Your task to perform on an android device: stop showing notifications on the lock screen Image 0: 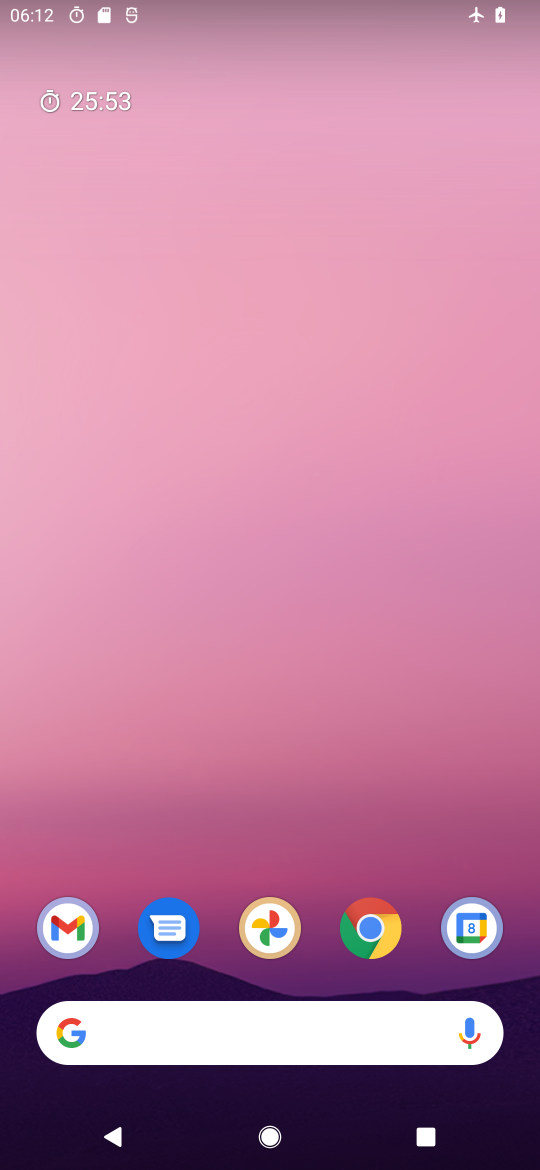
Step 0: drag from (228, 987) to (297, 384)
Your task to perform on an android device: stop showing notifications on the lock screen Image 1: 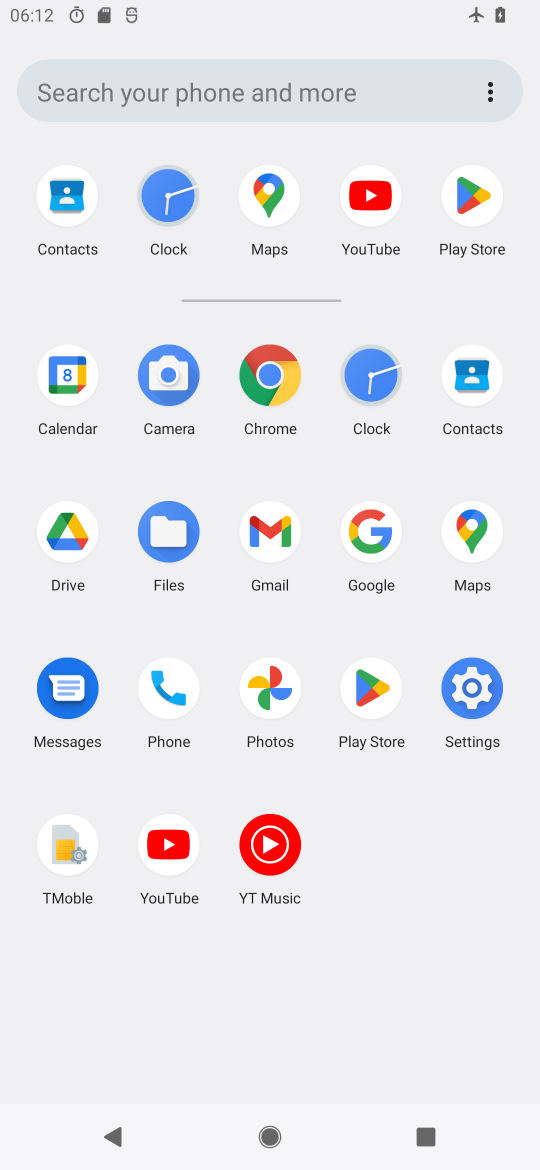
Step 1: click (474, 690)
Your task to perform on an android device: stop showing notifications on the lock screen Image 2: 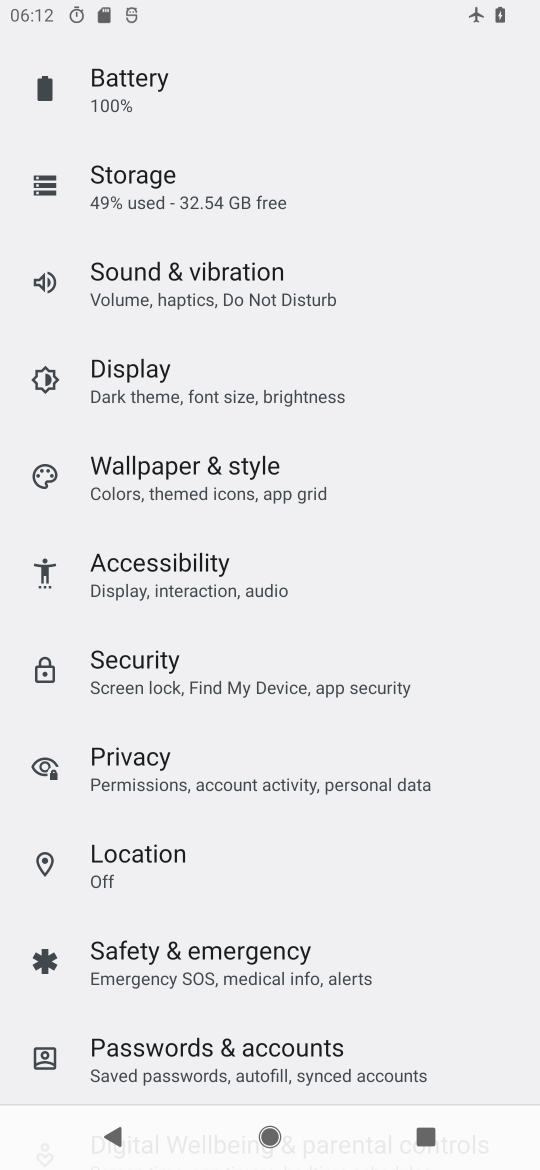
Step 2: drag from (221, 372) to (223, 807)
Your task to perform on an android device: stop showing notifications on the lock screen Image 3: 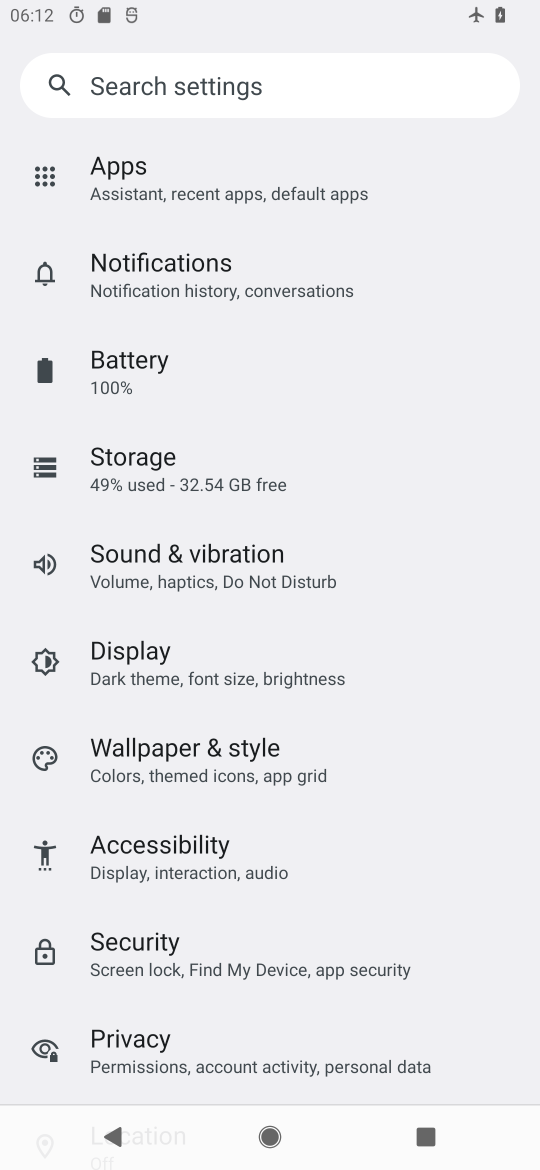
Step 3: click (217, 281)
Your task to perform on an android device: stop showing notifications on the lock screen Image 4: 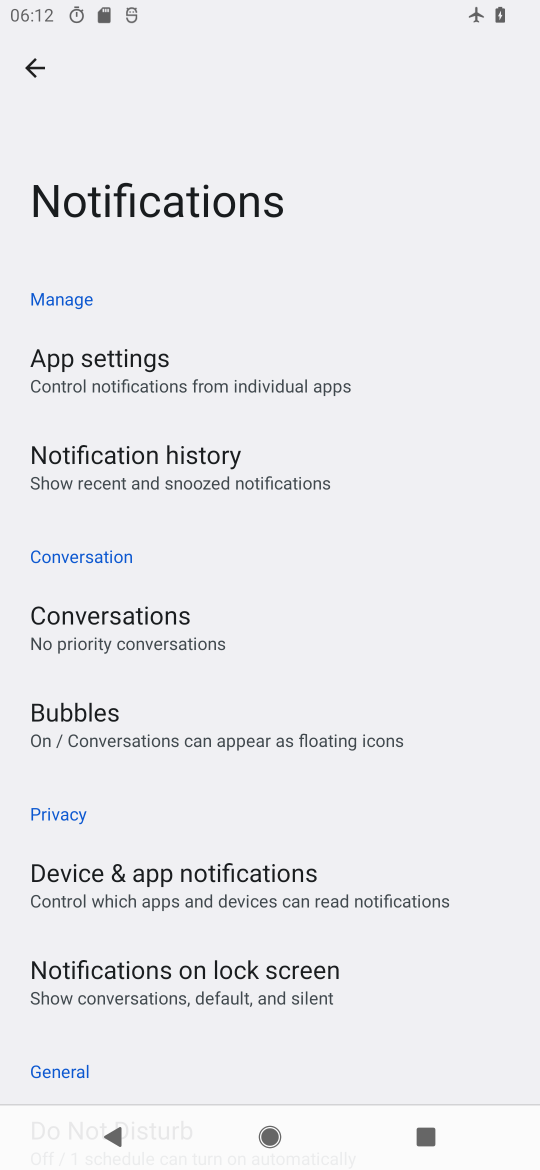
Step 4: drag from (189, 970) to (227, 665)
Your task to perform on an android device: stop showing notifications on the lock screen Image 5: 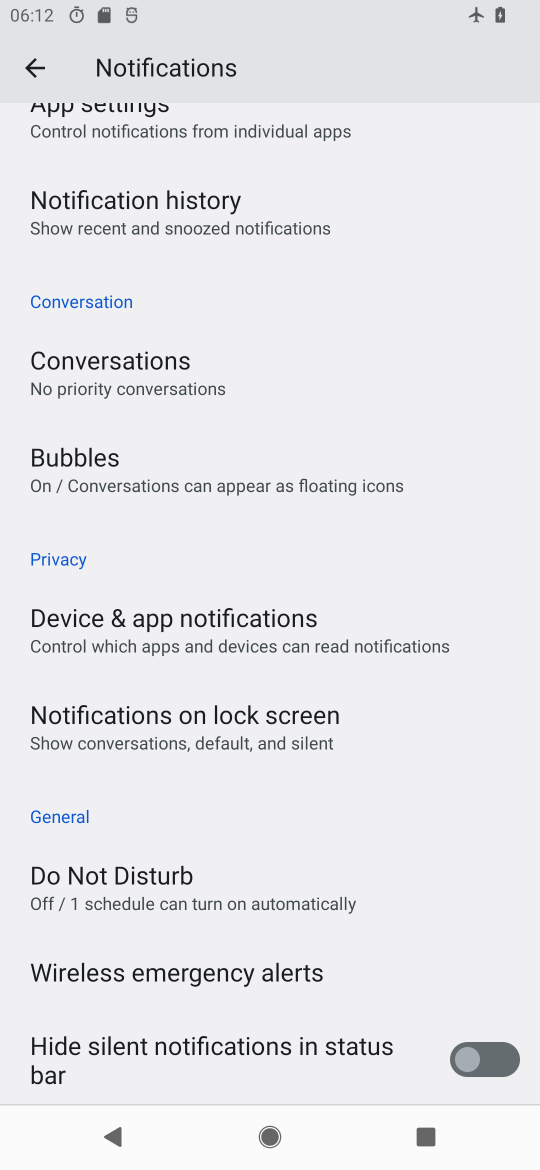
Step 5: click (207, 732)
Your task to perform on an android device: stop showing notifications on the lock screen Image 6: 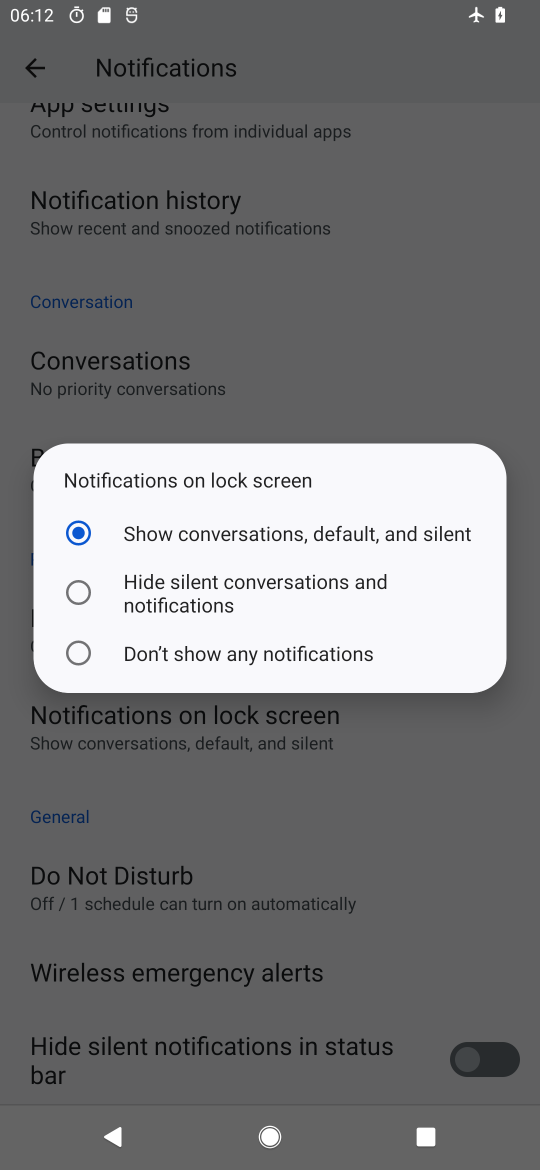
Step 6: click (140, 672)
Your task to perform on an android device: stop showing notifications on the lock screen Image 7: 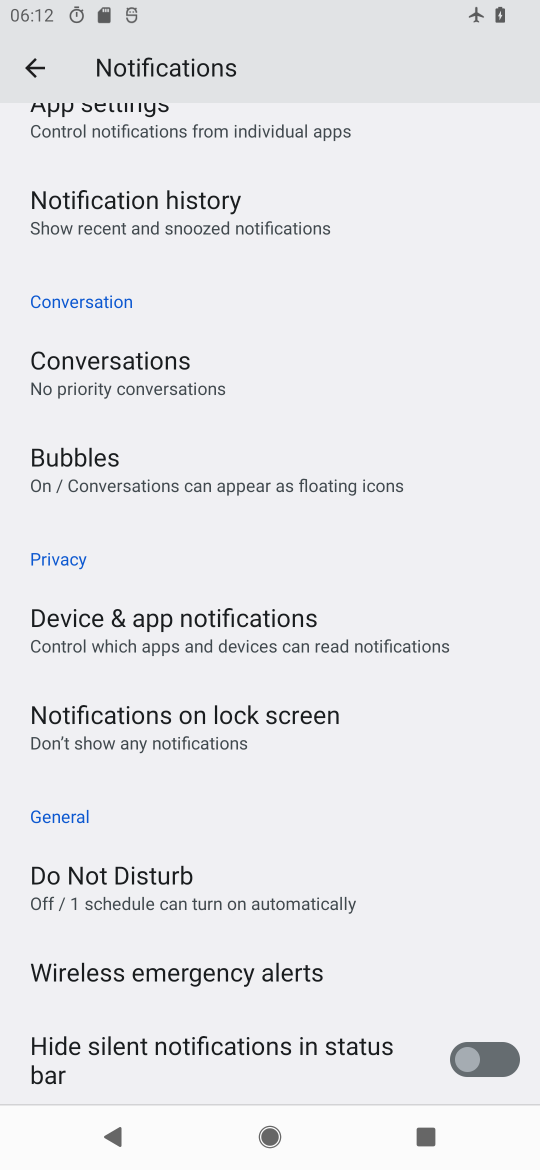
Step 7: task complete